Your task to perform on an android device: Open Chrome and go to the settings page Image 0: 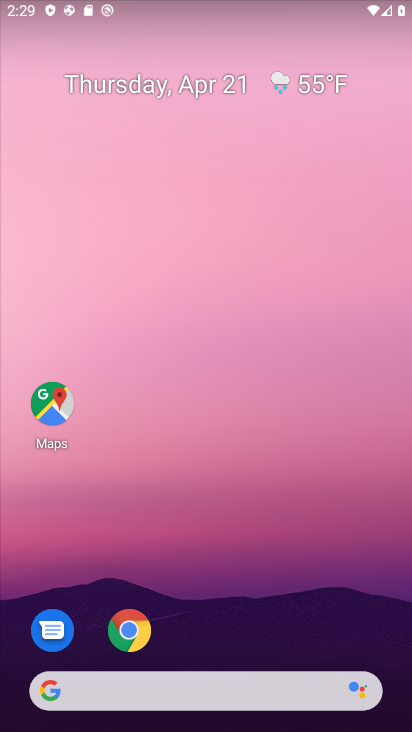
Step 0: click (122, 635)
Your task to perform on an android device: Open Chrome and go to the settings page Image 1: 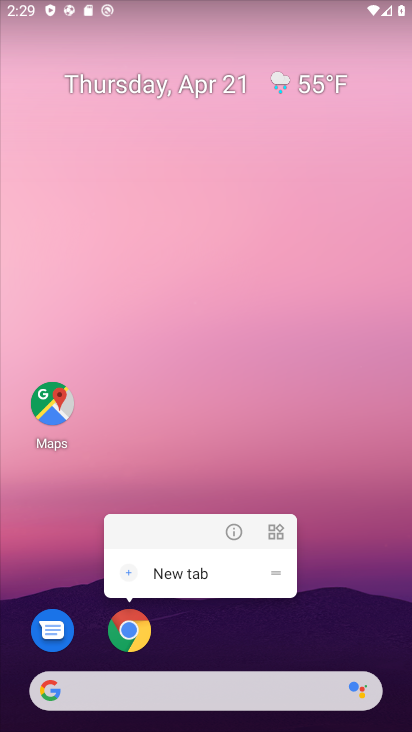
Step 1: click (140, 642)
Your task to perform on an android device: Open Chrome and go to the settings page Image 2: 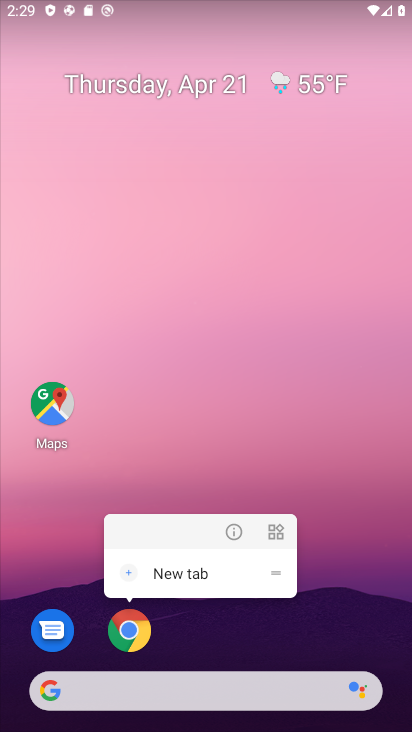
Step 2: click (130, 630)
Your task to perform on an android device: Open Chrome and go to the settings page Image 3: 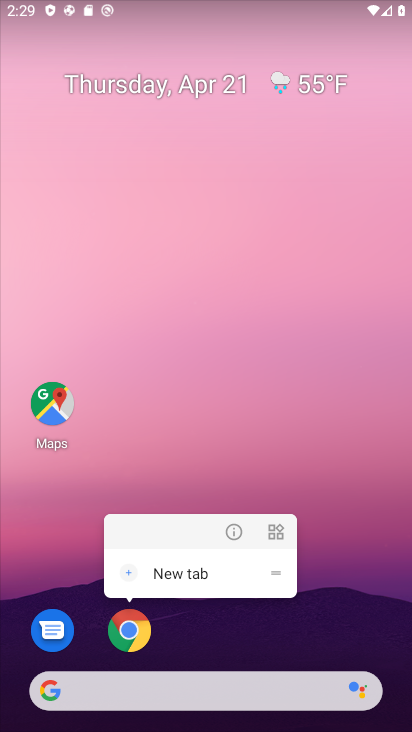
Step 3: click (130, 630)
Your task to perform on an android device: Open Chrome and go to the settings page Image 4: 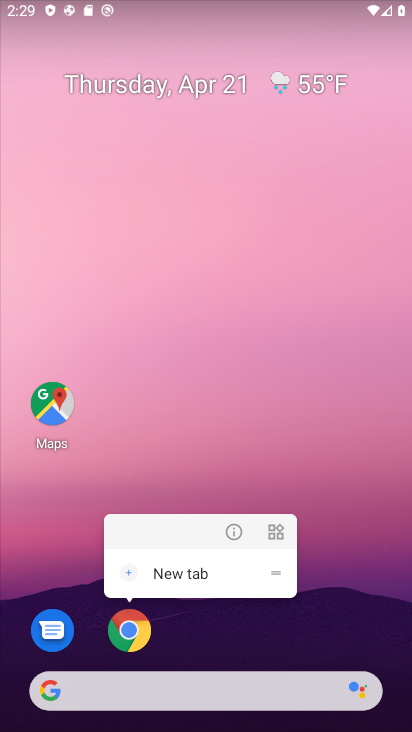
Step 4: click (130, 645)
Your task to perform on an android device: Open Chrome and go to the settings page Image 5: 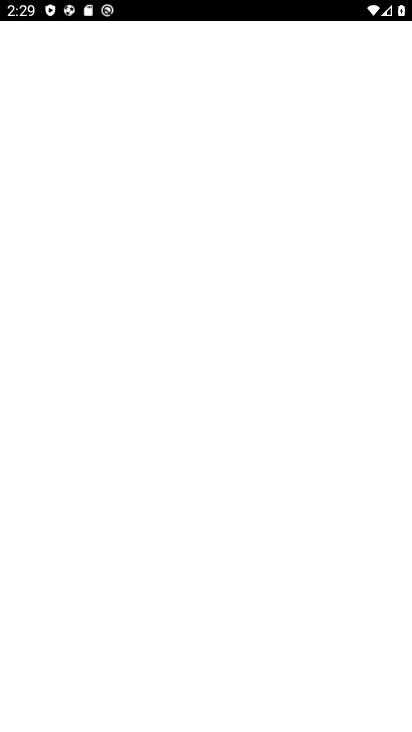
Step 5: click (130, 637)
Your task to perform on an android device: Open Chrome and go to the settings page Image 6: 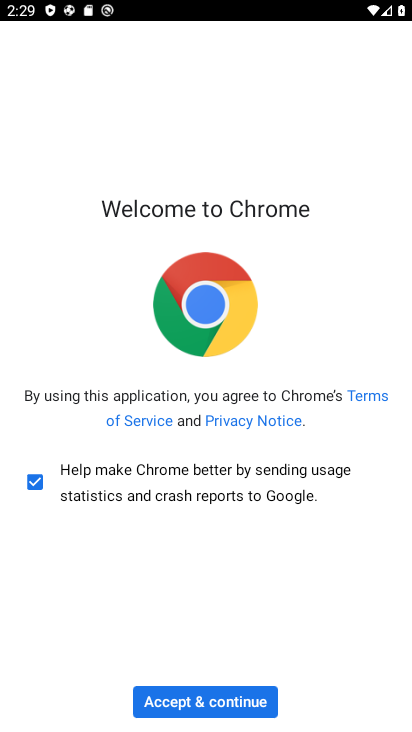
Step 6: click (226, 706)
Your task to perform on an android device: Open Chrome and go to the settings page Image 7: 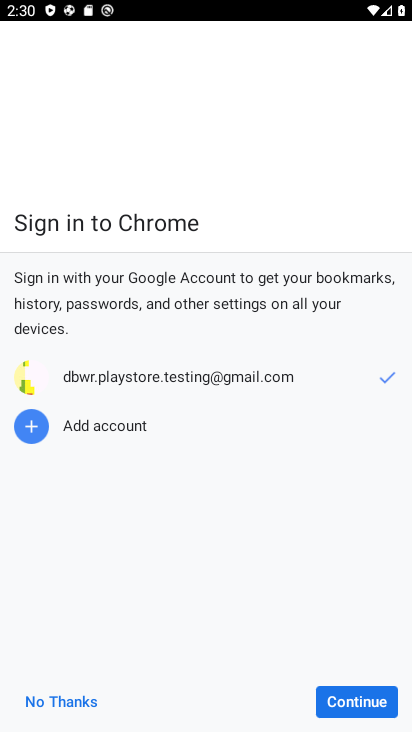
Step 7: click (362, 699)
Your task to perform on an android device: Open Chrome and go to the settings page Image 8: 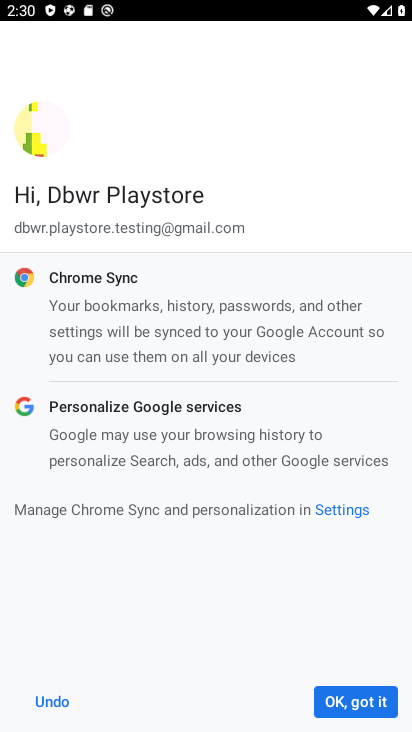
Step 8: click (362, 699)
Your task to perform on an android device: Open Chrome and go to the settings page Image 9: 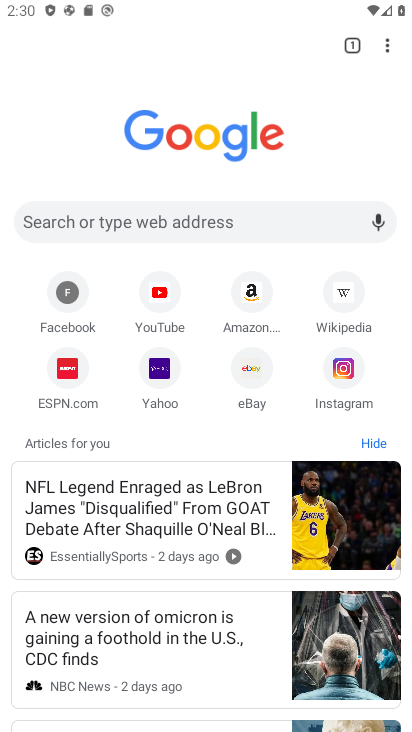
Step 9: task complete